Your task to perform on an android device: Go to wifi settings Image 0: 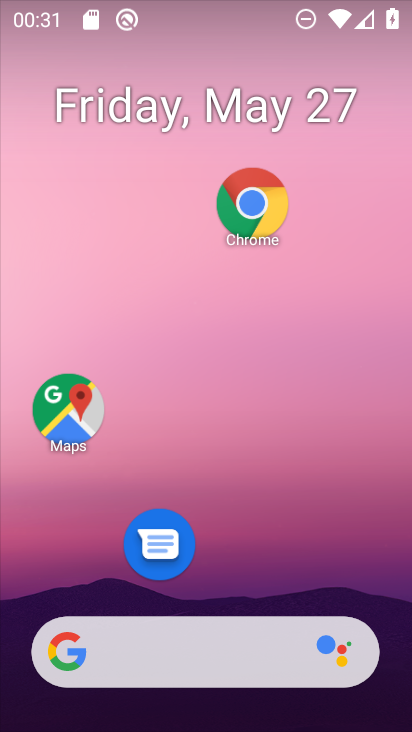
Step 0: drag from (124, 402) to (191, 53)
Your task to perform on an android device: Go to wifi settings Image 1: 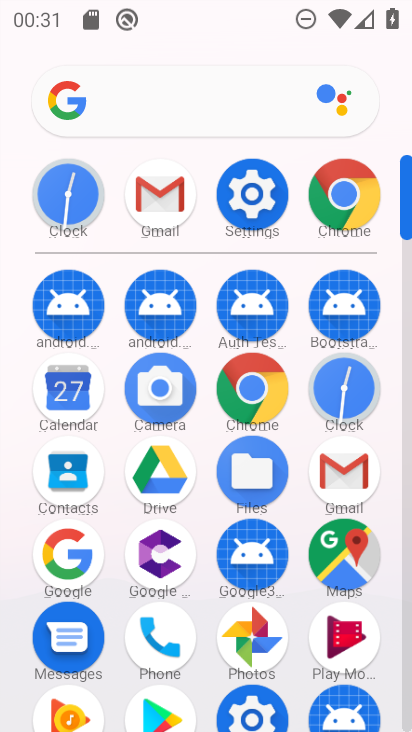
Step 1: click (260, 204)
Your task to perform on an android device: Go to wifi settings Image 2: 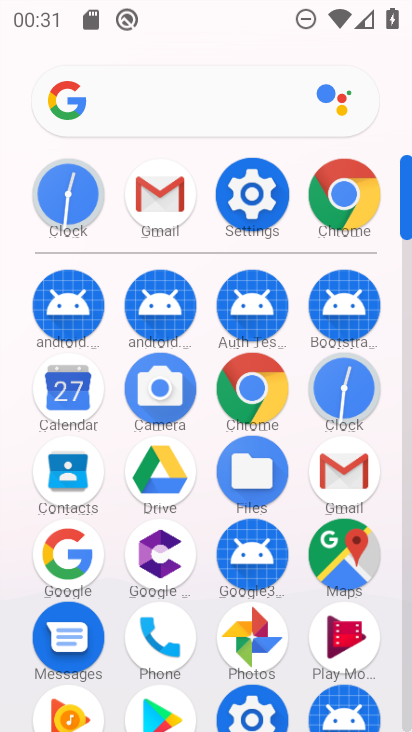
Step 2: click (259, 203)
Your task to perform on an android device: Go to wifi settings Image 3: 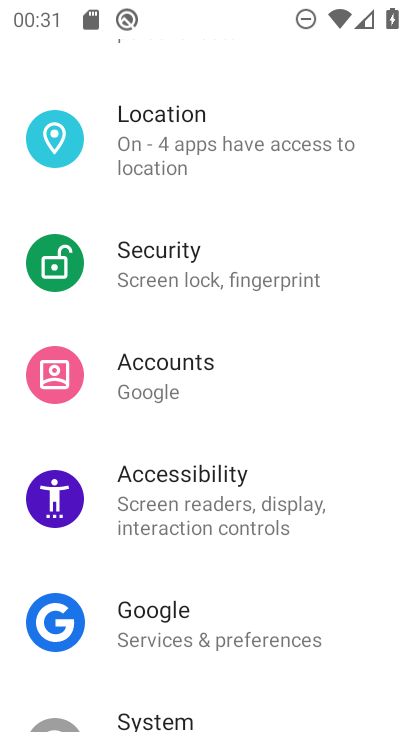
Step 3: drag from (196, 128) to (409, 710)
Your task to perform on an android device: Go to wifi settings Image 4: 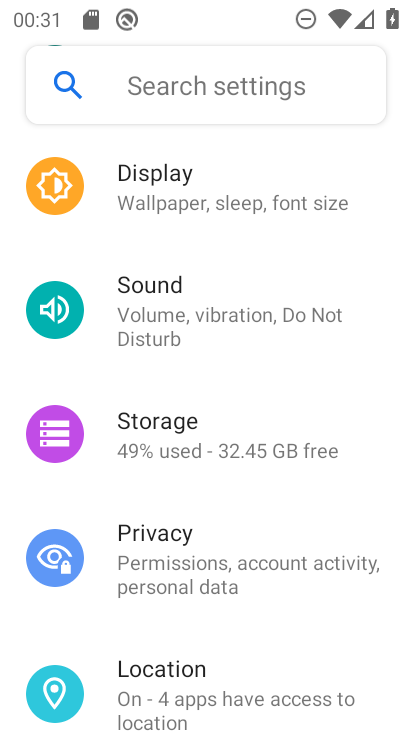
Step 4: drag from (185, 349) to (123, 723)
Your task to perform on an android device: Go to wifi settings Image 5: 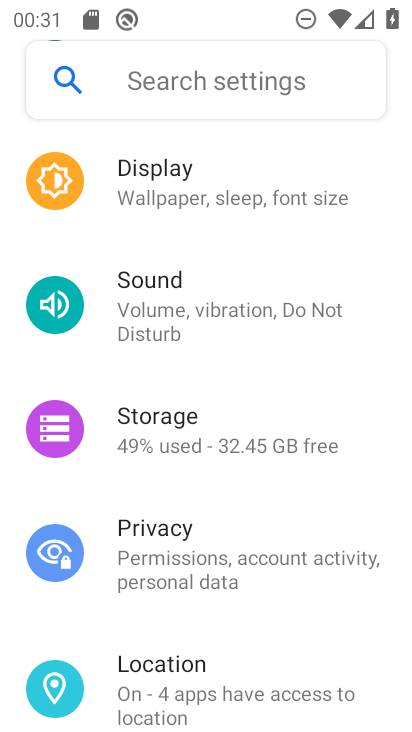
Step 5: drag from (181, 189) to (255, 711)
Your task to perform on an android device: Go to wifi settings Image 6: 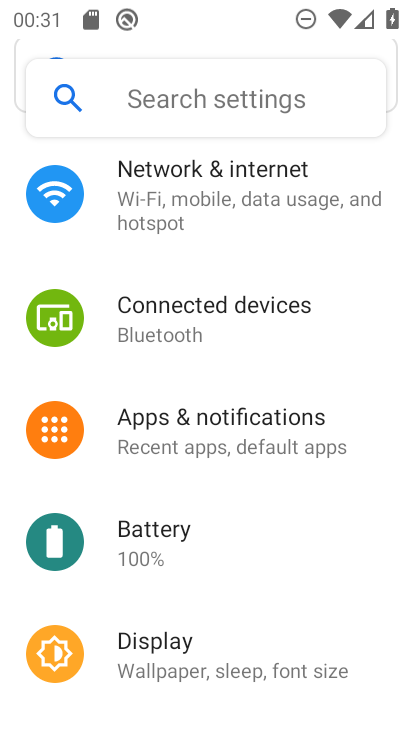
Step 6: drag from (217, 234) to (284, 684)
Your task to perform on an android device: Go to wifi settings Image 7: 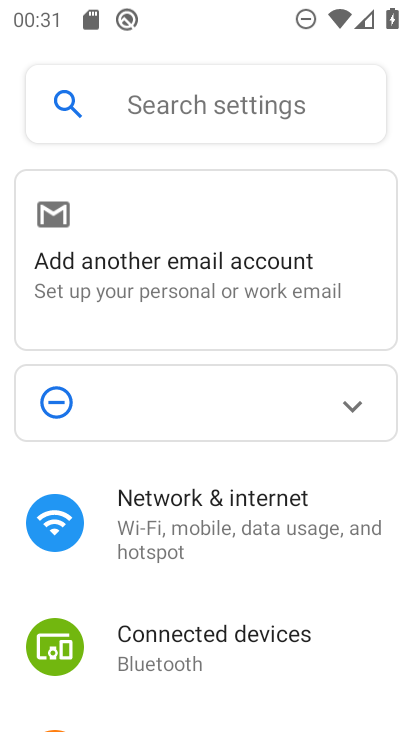
Step 7: click (203, 521)
Your task to perform on an android device: Go to wifi settings Image 8: 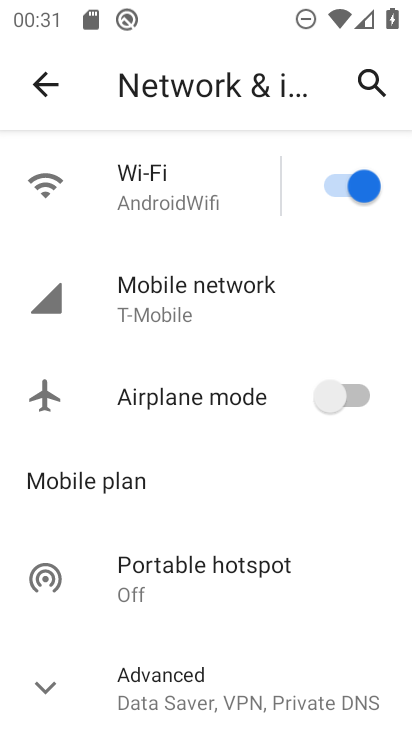
Step 8: click (223, 210)
Your task to perform on an android device: Go to wifi settings Image 9: 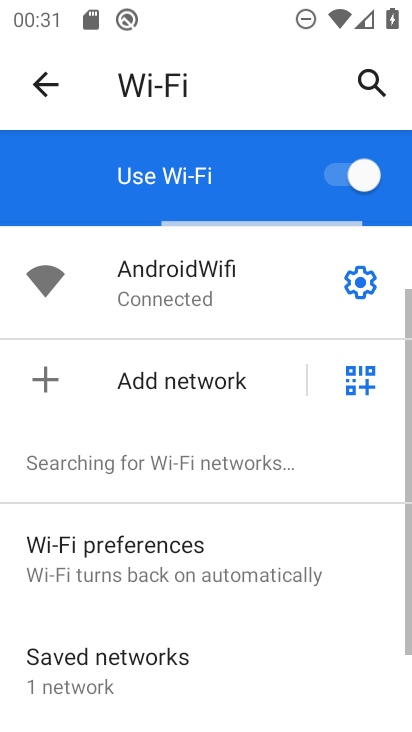
Step 9: task complete